Your task to perform on an android device: refresh tabs in the chrome app Image 0: 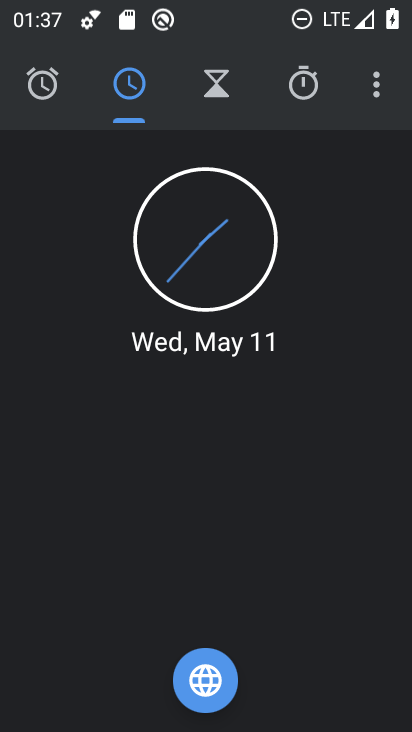
Step 0: press home button
Your task to perform on an android device: refresh tabs in the chrome app Image 1: 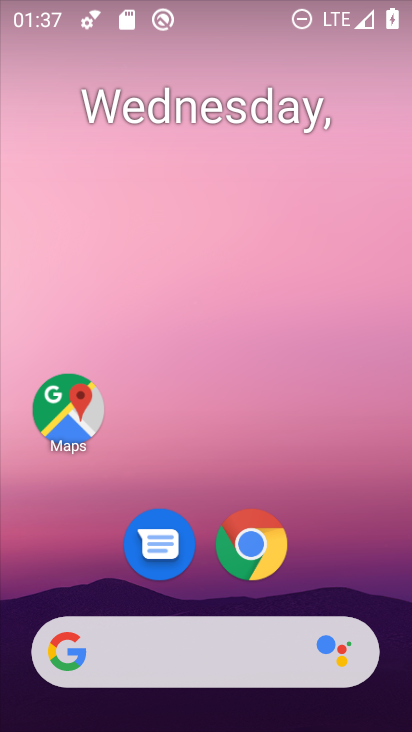
Step 1: click (246, 538)
Your task to perform on an android device: refresh tabs in the chrome app Image 2: 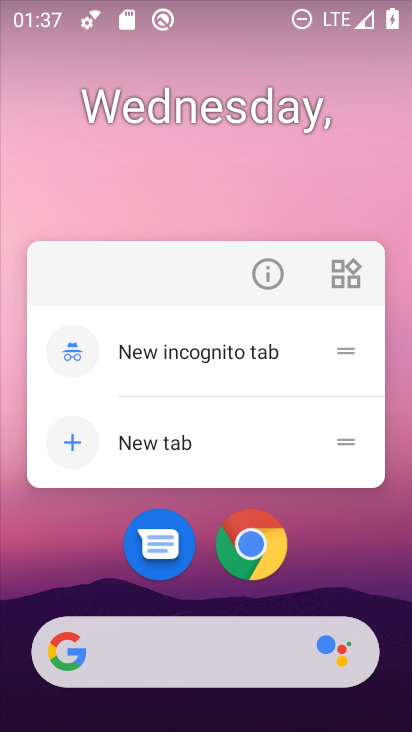
Step 2: click (246, 538)
Your task to perform on an android device: refresh tabs in the chrome app Image 3: 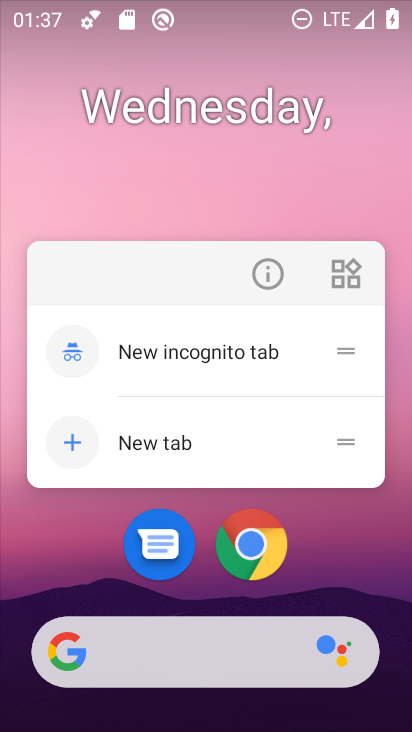
Step 3: click (247, 538)
Your task to perform on an android device: refresh tabs in the chrome app Image 4: 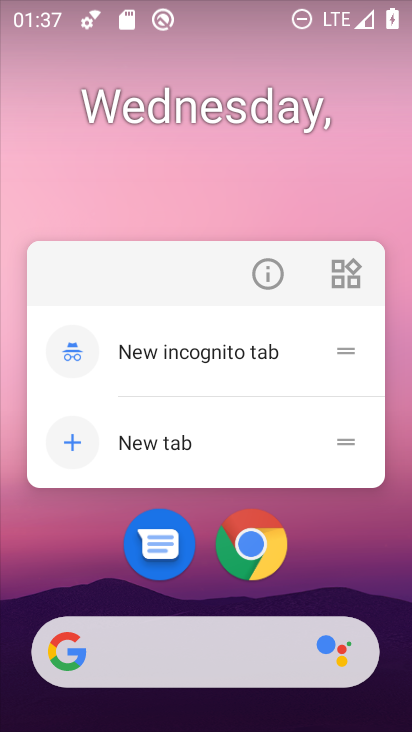
Step 4: click (247, 538)
Your task to perform on an android device: refresh tabs in the chrome app Image 5: 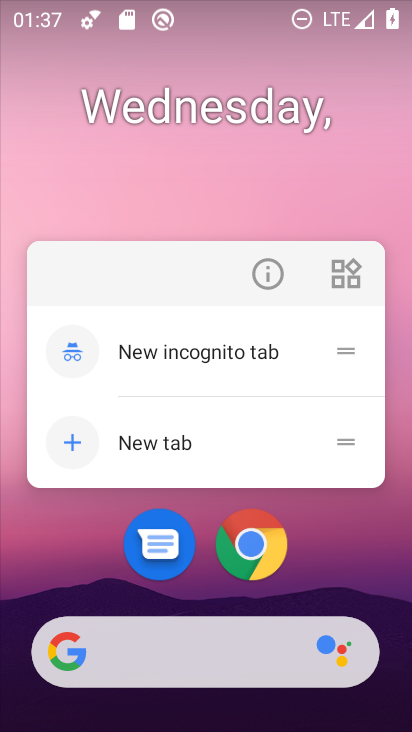
Step 5: click (252, 548)
Your task to perform on an android device: refresh tabs in the chrome app Image 6: 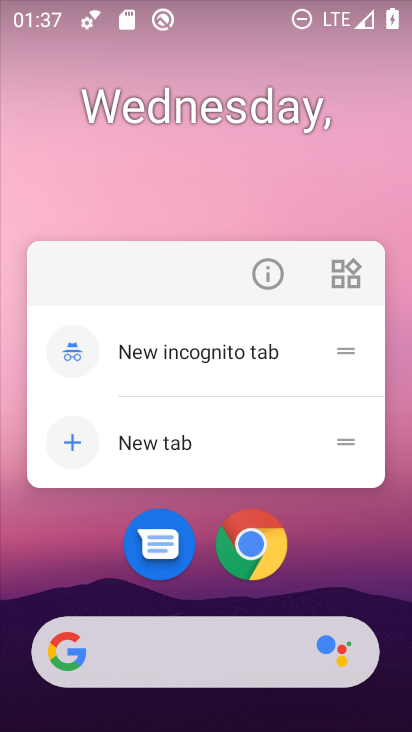
Step 6: click (239, 559)
Your task to perform on an android device: refresh tabs in the chrome app Image 7: 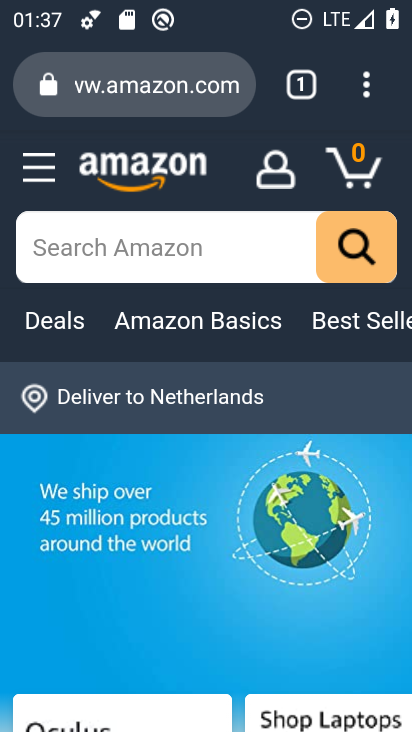
Step 7: click (369, 79)
Your task to perform on an android device: refresh tabs in the chrome app Image 8: 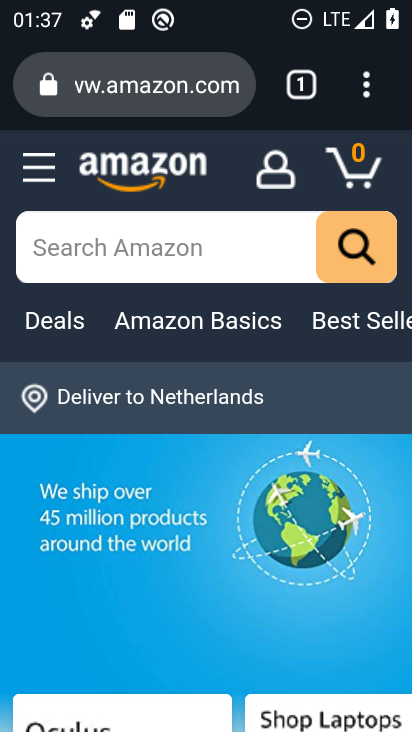
Step 8: task complete